Your task to perform on an android device: open a bookmark in the chrome app Image 0: 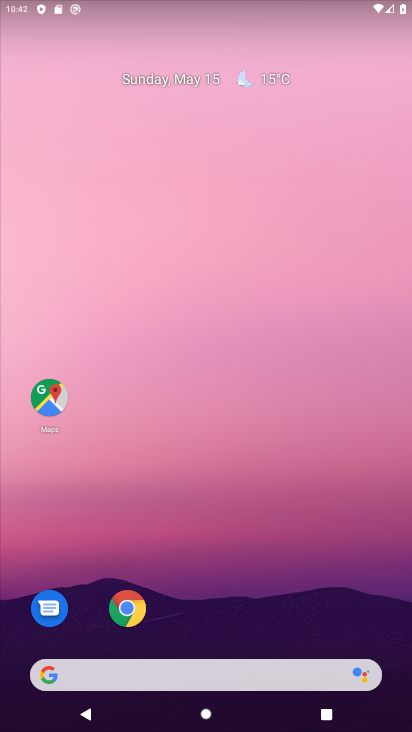
Step 0: click (139, 627)
Your task to perform on an android device: open a bookmark in the chrome app Image 1: 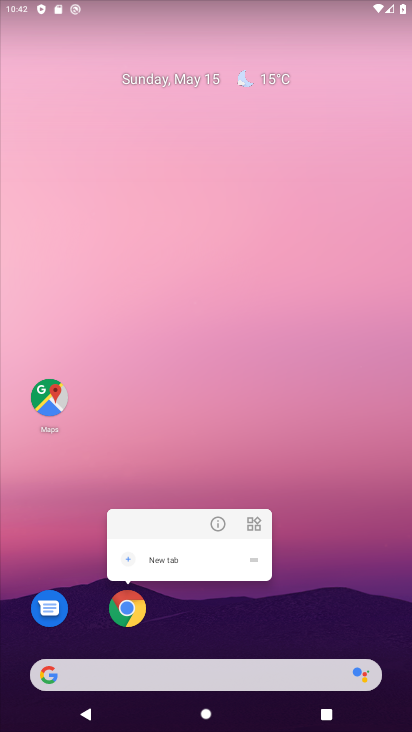
Step 1: click (132, 605)
Your task to perform on an android device: open a bookmark in the chrome app Image 2: 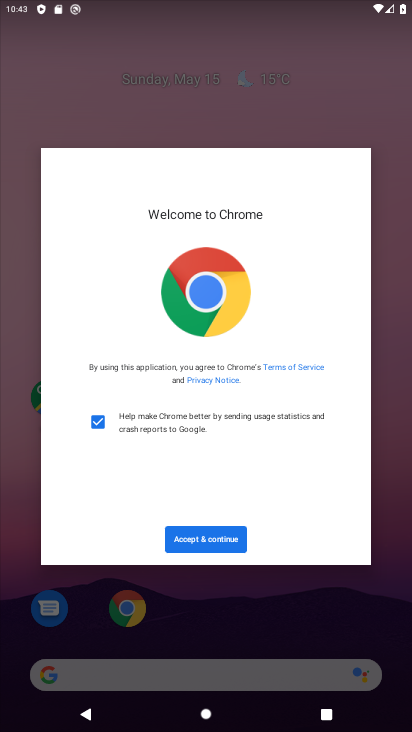
Step 2: click (188, 536)
Your task to perform on an android device: open a bookmark in the chrome app Image 3: 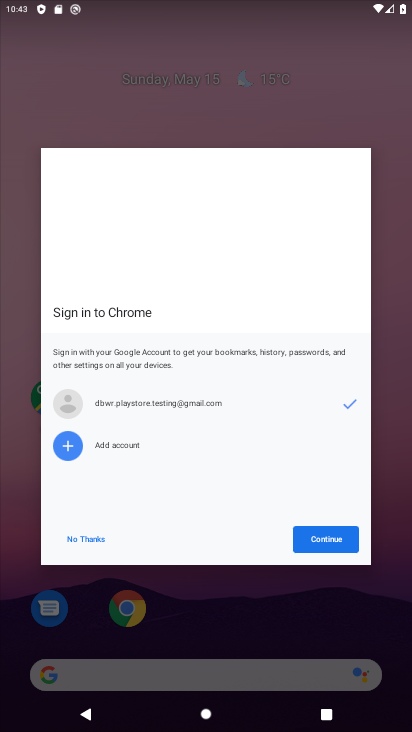
Step 3: click (342, 530)
Your task to perform on an android device: open a bookmark in the chrome app Image 4: 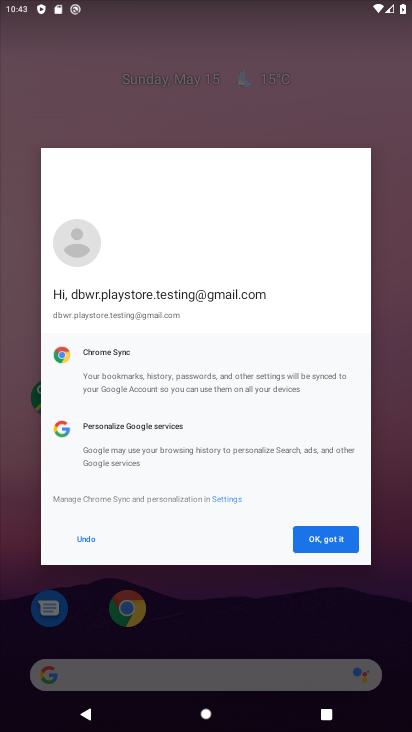
Step 4: click (348, 546)
Your task to perform on an android device: open a bookmark in the chrome app Image 5: 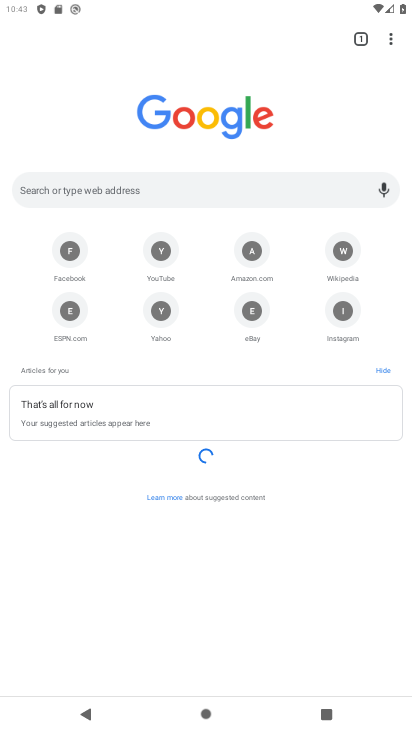
Step 5: click (391, 39)
Your task to perform on an android device: open a bookmark in the chrome app Image 6: 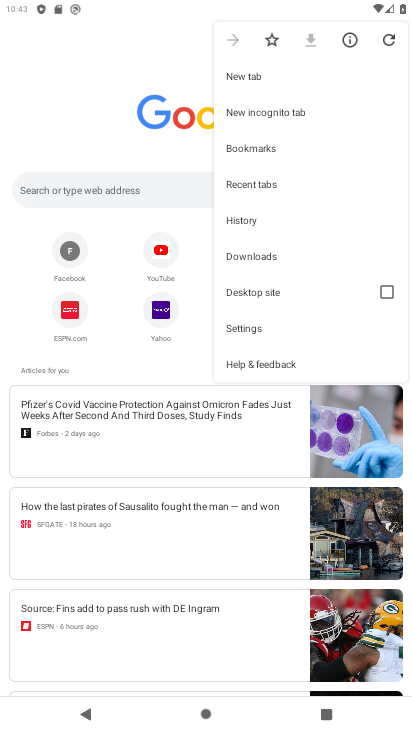
Step 6: click (244, 153)
Your task to perform on an android device: open a bookmark in the chrome app Image 7: 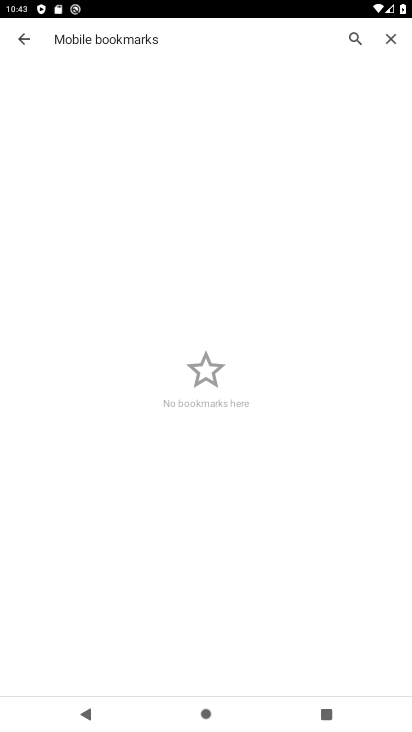
Step 7: task complete